Your task to perform on an android device: Search for Italian restaurants on Maps Image 0: 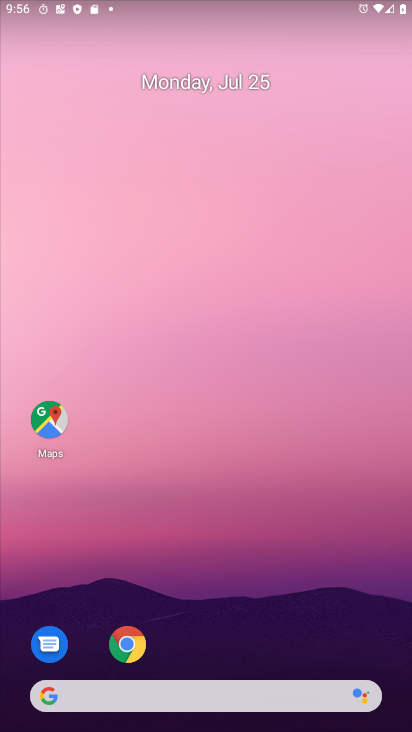
Step 0: drag from (214, 595) to (204, 104)
Your task to perform on an android device: Search for Italian restaurants on Maps Image 1: 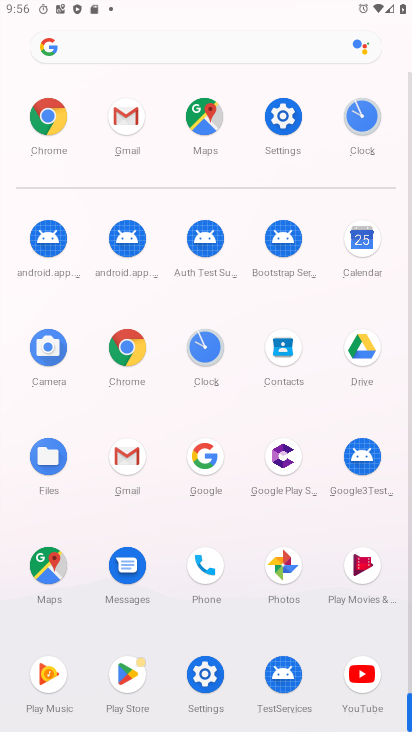
Step 1: click (46, 569)
Your task to perform on an android device: Search for Italian restaurants on Maps Image 2: 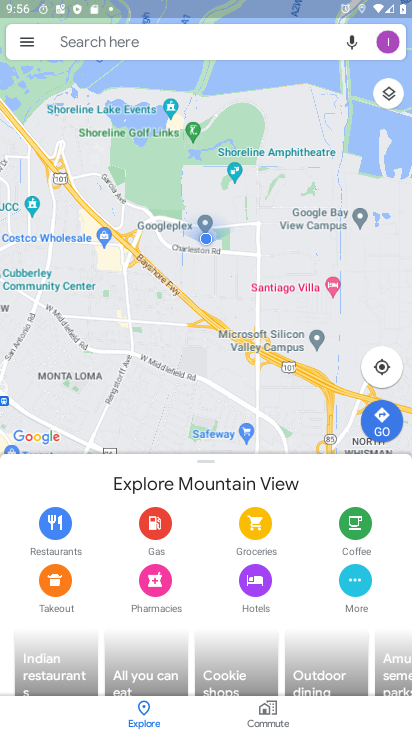
Step 2: click (125, 49)
Your task to perform on an android device: Search for Italian restaurants on Maps Image 3: 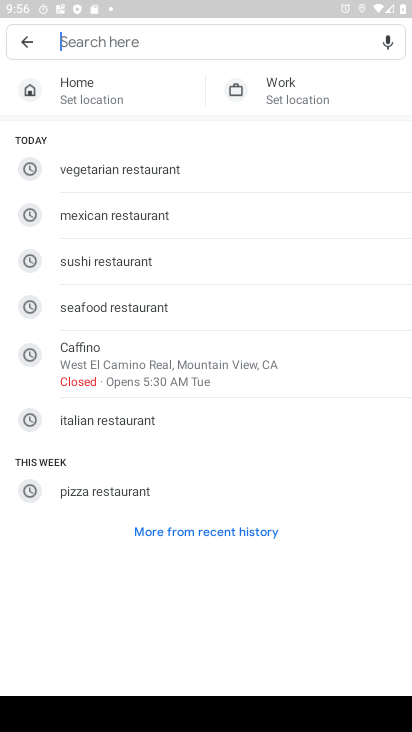
Step 3: click (123, 428)
Your task to perform on an android device: Search for Italian restaurants on Maps Image 4: 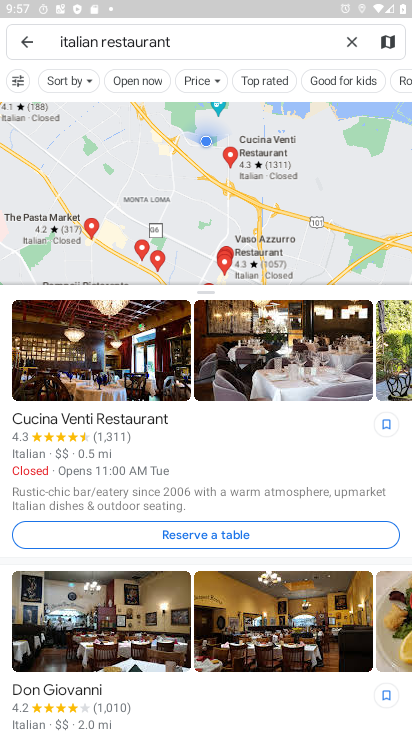
Step 4: task complete